Your task to perform on an android device: Search for seafood restaurants on Google Maps Image 0: 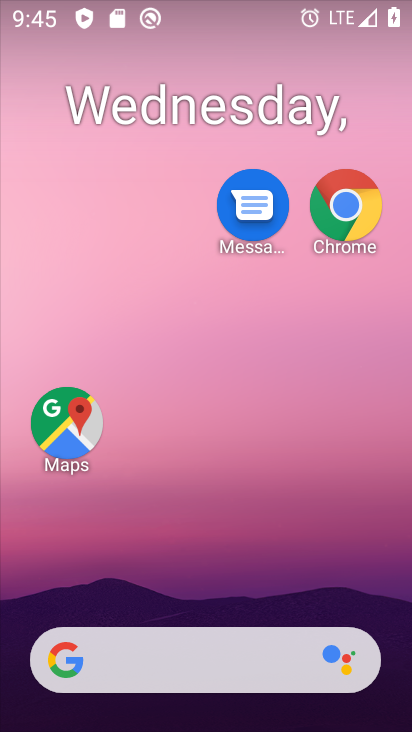
Step 0: click (395, 491)
Your task to perform on an android device: Search for seafood restaurants on Google Maps Image 1: 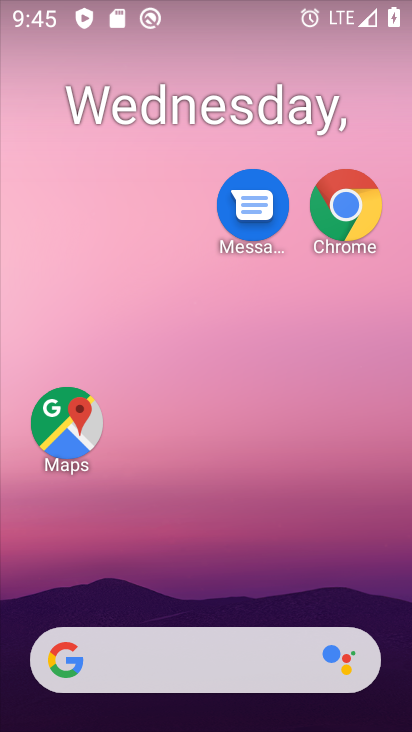
Step 1: drag from (206, 589) to (200, 83)
Your task to perform on an android device: Search for seafood restaurants on Google Maps Image 2: 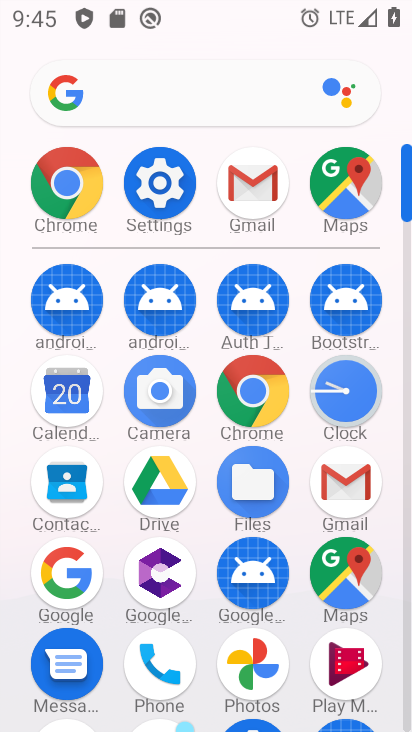
Step 2: click (339, 579)
Your task to perform on an android device: Search for seafood restaurants on Google Maps Image 3: 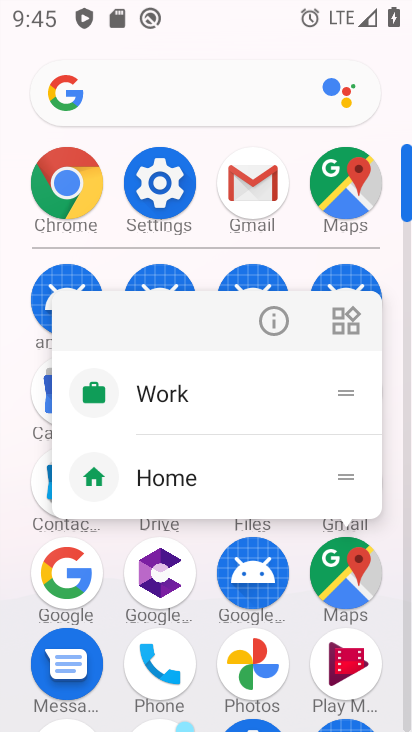
Step 3: click (283, 328)
Your task to perform on an android device: Search for seafood restaurants on Google Maps Image 4: 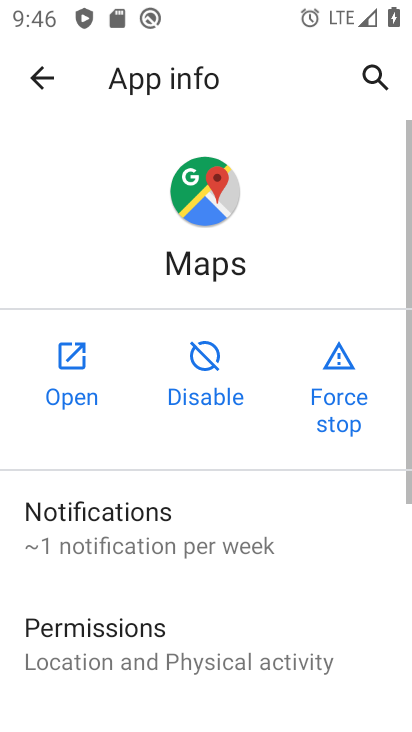
Step 4: click (75, 373)
Your task to perform on an android device: Search for seafood restaurants on Google Maps Image 5: 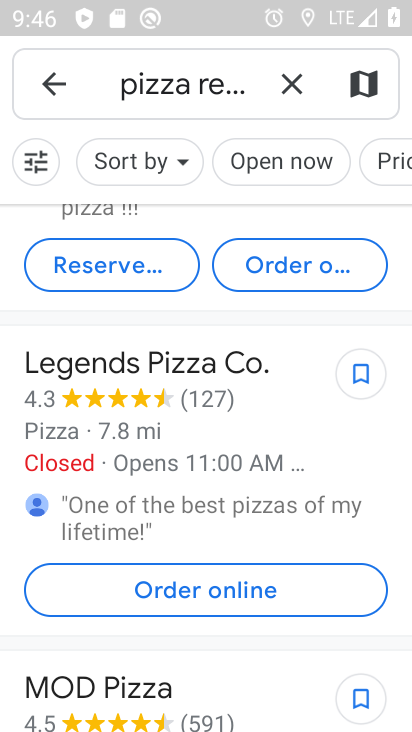
Step 5: click (284, 79)
Your task to perform on an android device: Search for seafood restaurants on Google Maps Image 6: 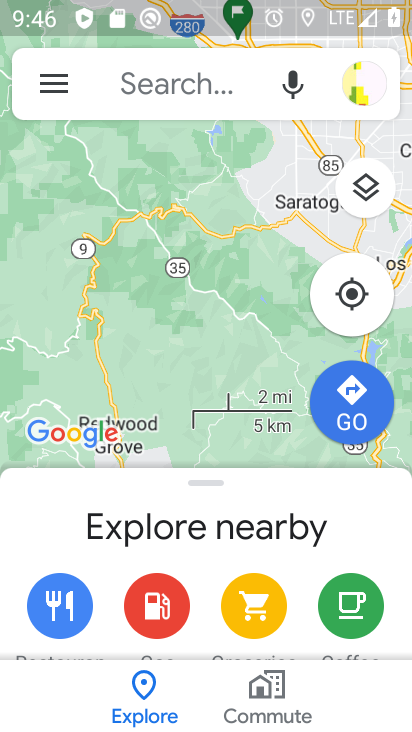
Step 6: click (168, 87)
Your task to perform on an android device: Search for seafood restaurants on Google Maps Image 7: 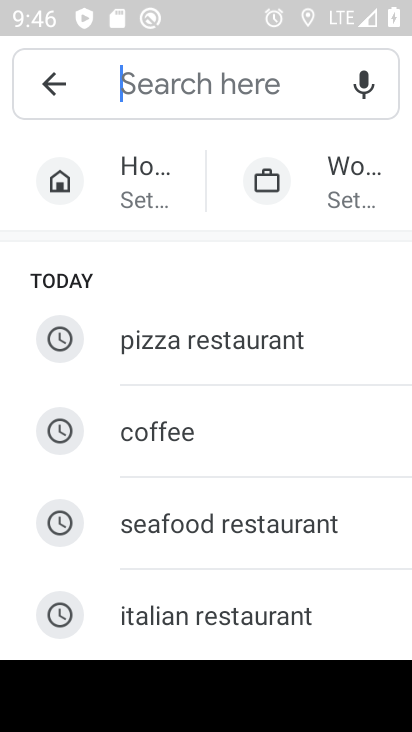
Step 7: type "seafood restaurants"
Your task to perform on an android device: Search for seafood restaurants on Google Maps Image 8: 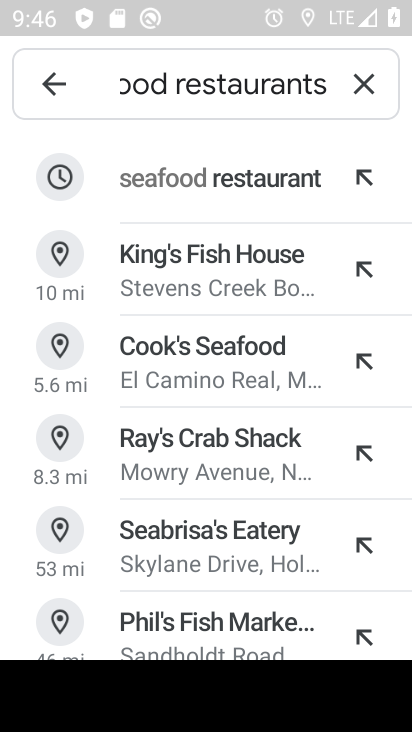
Step 8: click (205, 171)
Your task to perform on an android device: Search for seafood restaurants on Google Maps Image 9: 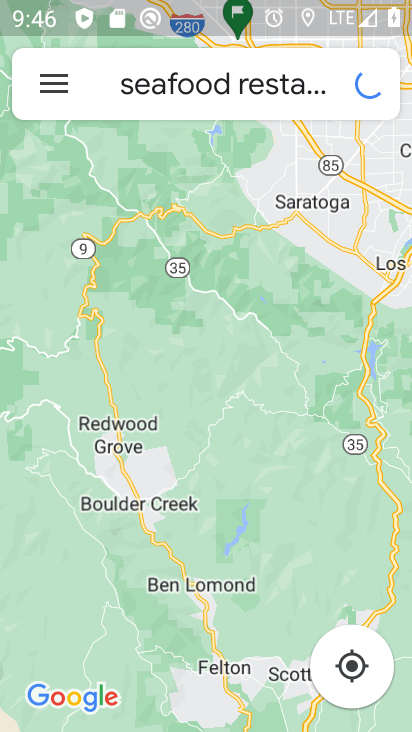
Step 9: task complete